Your task to perform on an android device: turn off priority inbox in the gmail app Image 0: 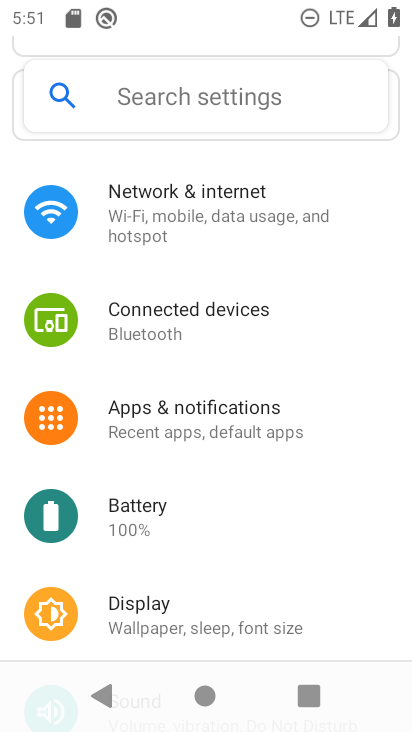
Step 0: press home button
Your task to perform on an android device: turn off priority inbox in the gmail app Image 1: 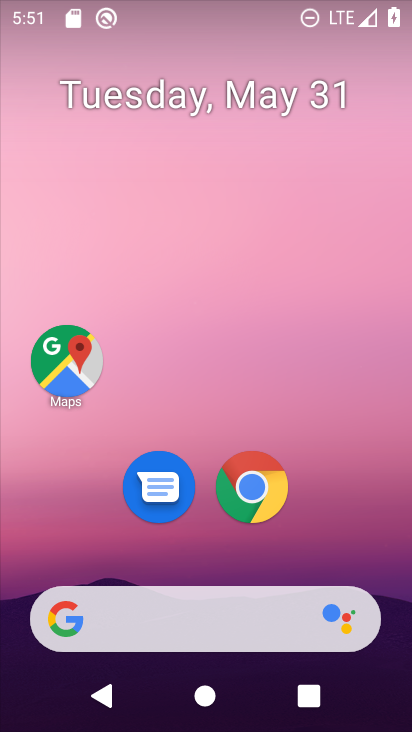
Step 1: drag from (337, 547) to (265, 17)
Your task to perform on an android device: turn off priority inbox in the gmail app Image 2: 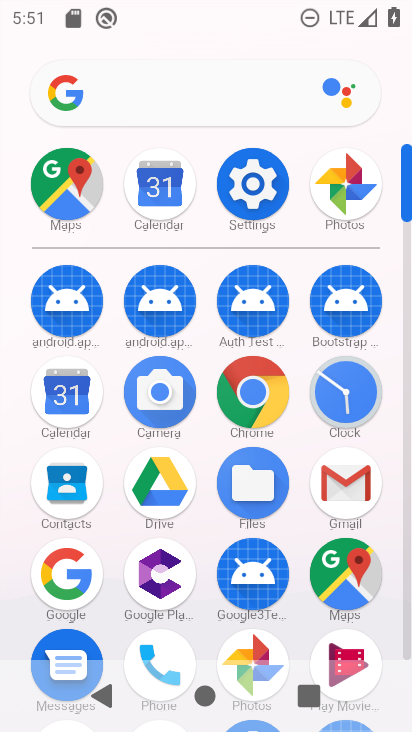
Step 2: click (339, 486)
Your task to perform on an android device: turn off priority inbox in the gmail app Image 3: 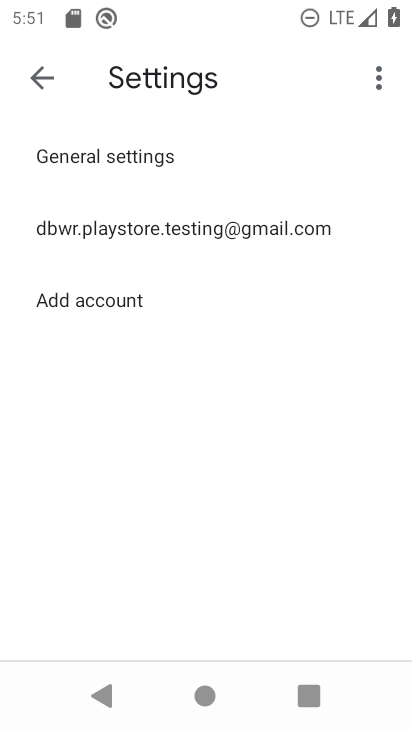
Step 3: click (140, 225)
Your task to perform on an android device: turn off priority inbox in the gmail app Image 4: 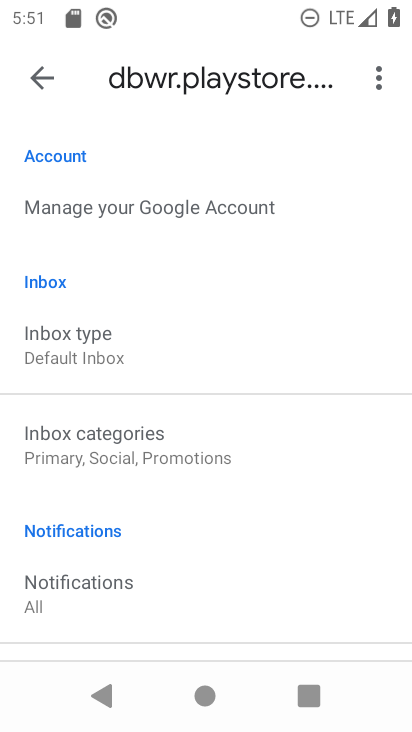
Step 4: click (70, 336)
Your task to perform on an android device: turn off priority inbox in the gmail app Image 5: 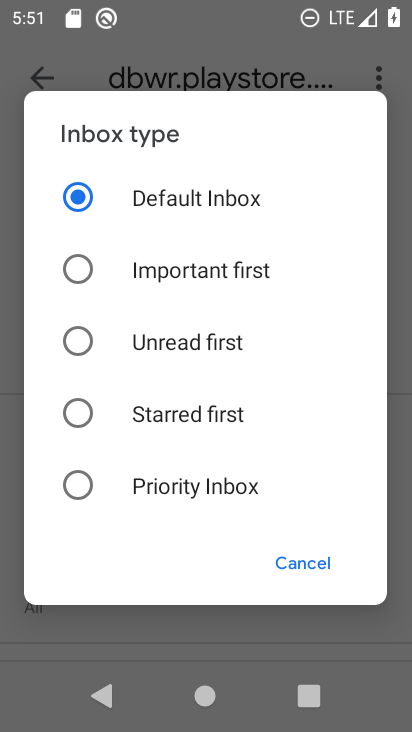
Step 5: task complete